Your task to perform on an android device: turn on airplane mode Image 0: 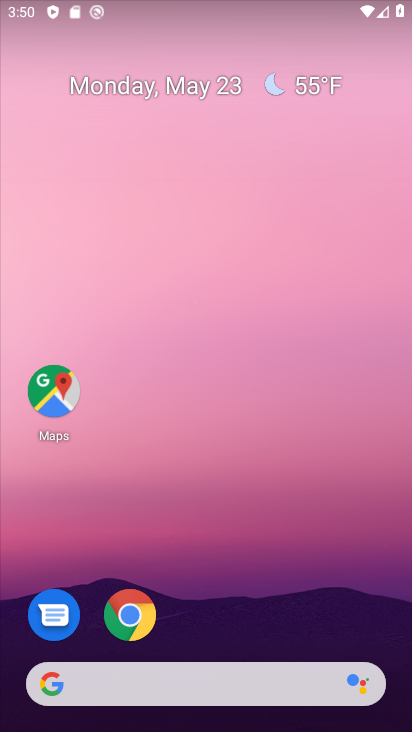
Step 0: drag from (362, 632) to (377, 205)
Your task to perform on an android device: turn on airplane mode Image 1: 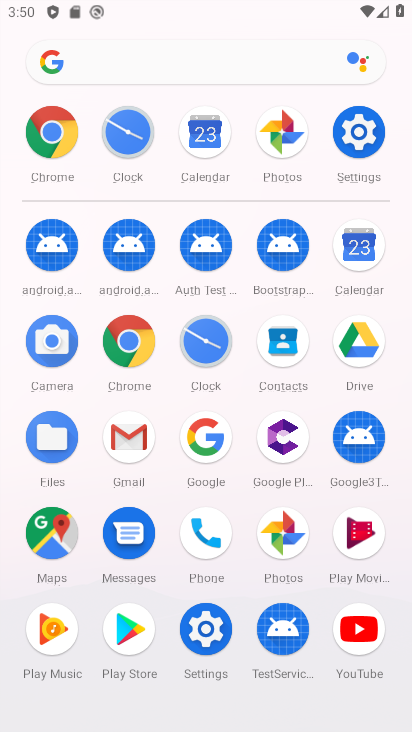
Step 1: click (375, 135)
Your task to perform on an android device: turn on airplane mode Image 2: 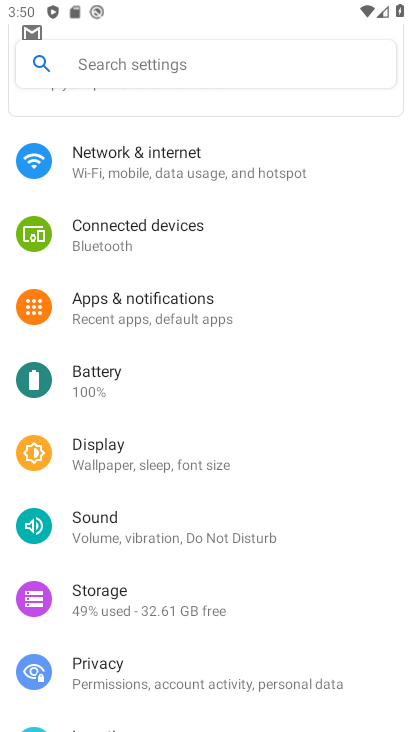
Step 2: drag from (339, 501) to (354, 397)
Your task to perform on an android device: turn on airplane mode Image 3: 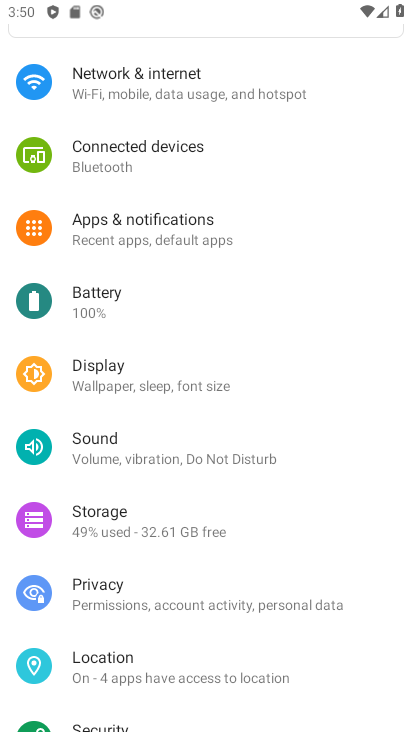
Step 3: drag from (347, 535) to (361, 439)
Your task to perform on an android device: turn on airplane mode Image 4: 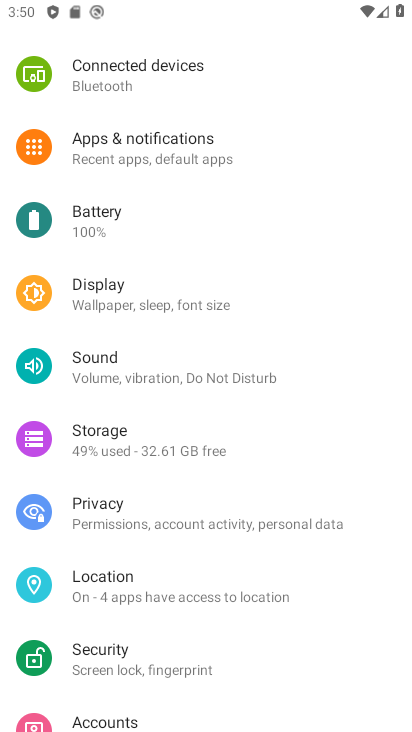
Step 4: drag from (360, 575) to (361, 478)
Your task to perform on an android device: turn on airplane mode Image 5: 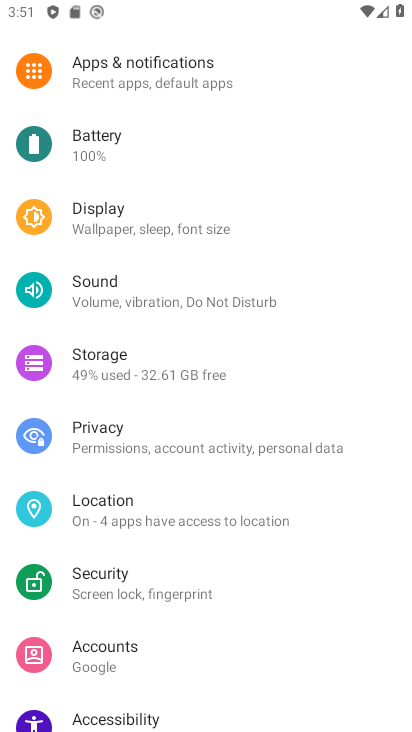
Step 5: drag from (349, 591) to (356, 498)
Your task to perform on an android device: turn on airplane mode Image 6: 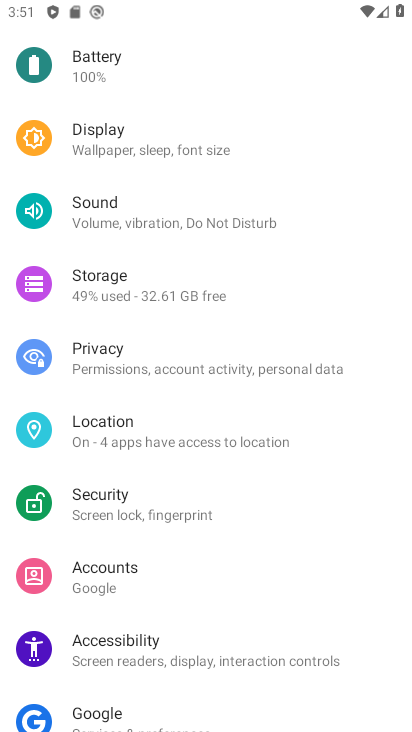
Step 6: drag from (344, 597) to (353, 500)
Your task to perform on an android device: turn on airplane mode Image 7: 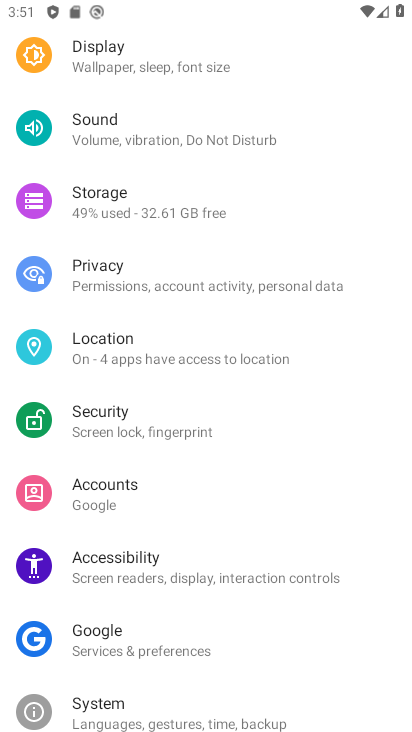
Step 7: drag from (356, 622) to (366, 521)
Your task to perform on an android device: turn on airplane mode Image 8: 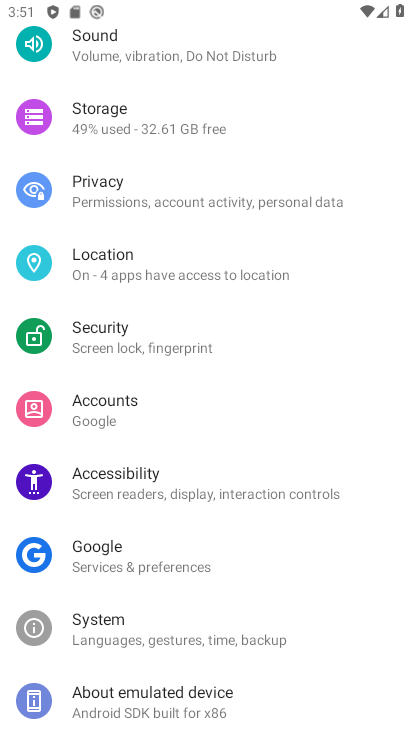
Step 8: drag from (346, 637) to (352, 548)
Your task to perform on an android device: turn on airplane mode Image 9: 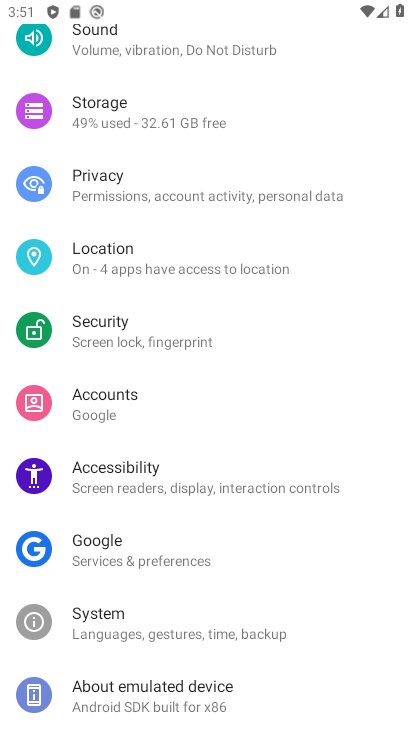
Step 9: drag from (338, 663) to (351, 510)
Your task to perform on an android device: turn on airplane mode Image 10: 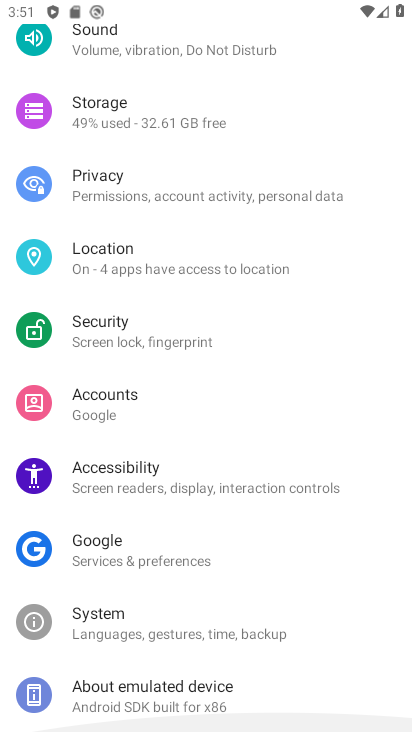
Step 10: drag from (366, 427) to (369, 505)
Your task to perform on an android device: turn on airplane mode Image 11: 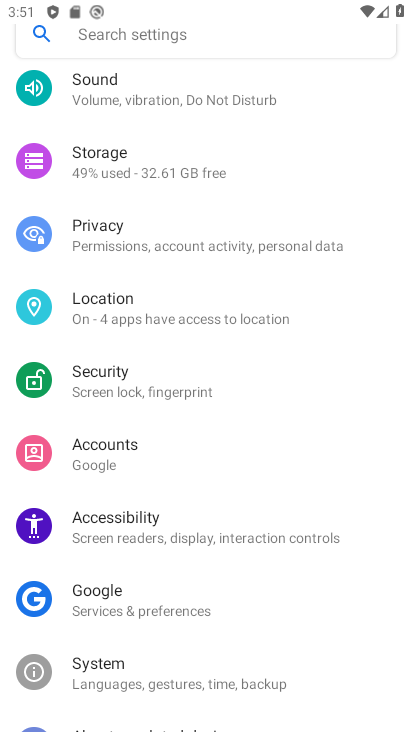
Step 11: drag from (384, 384) to (386, 501)
Your task to perform on an android device: turn on airplane mode Image 12: 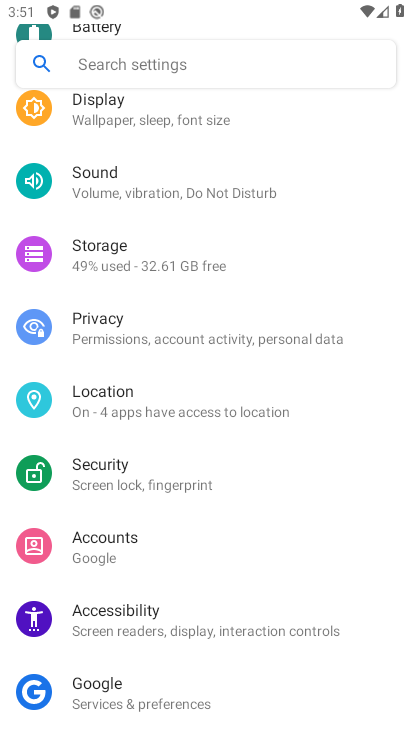
Step 12: drag from (386, 376) to (376, 475)
Your task to perform on an android device: turn on airplane mode Image 13: 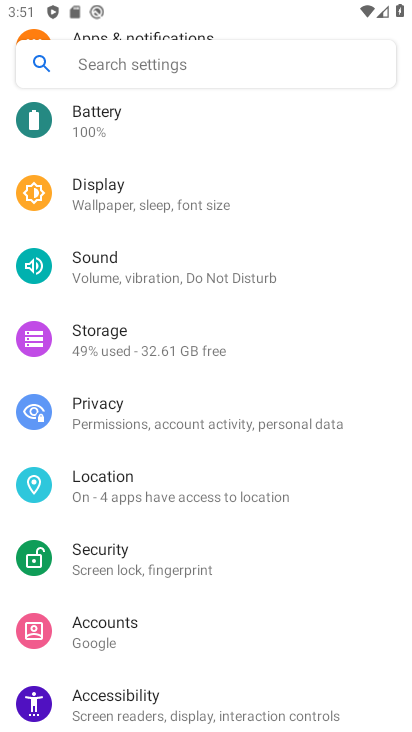
Step 13: drag from (376, 362) to (375, 458)
Your task to perform on an android device: turn on airplane mode Image 14: 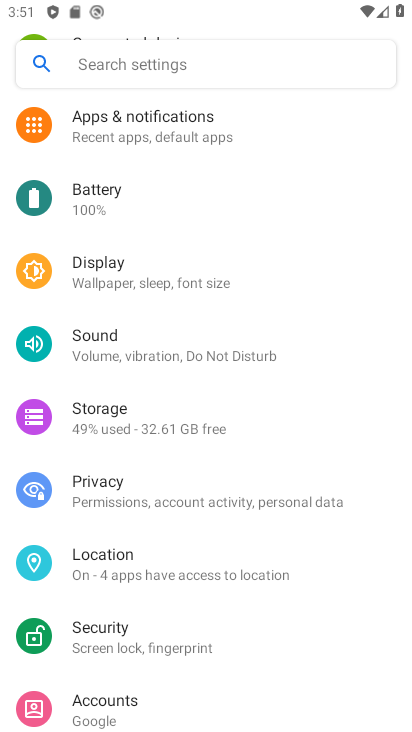
Step 14: drag from (363, 350) to (357, 435)
Your task to perform on an android device: turn on airplane mode Image 15: 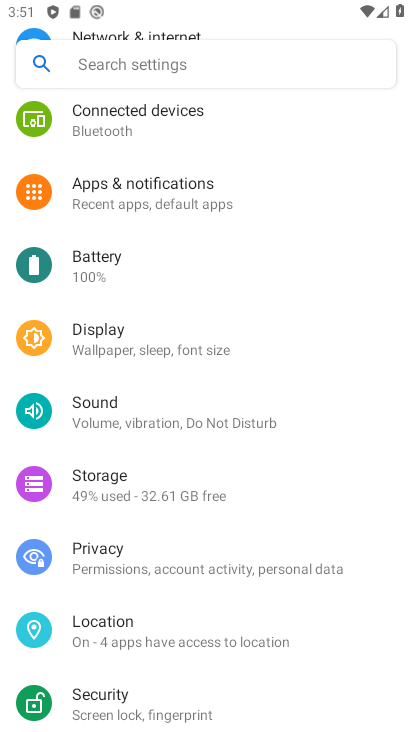
Step 15: drag from (357, 314) to (353, 425)
Your task to perform on an android device: turn on airplane mode Image 16: 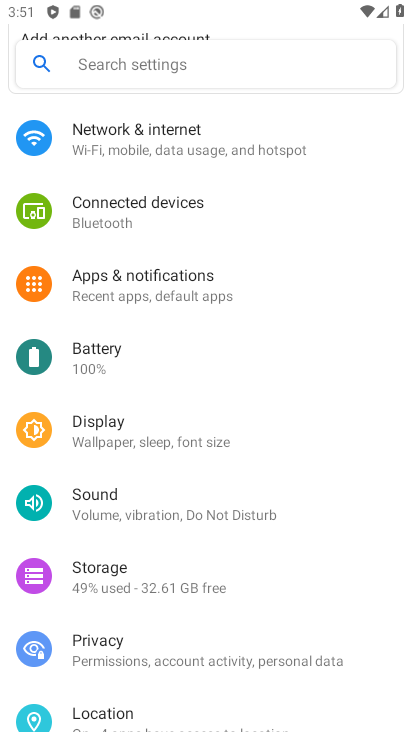
Step 16: drag from (342, 278) to (337, 394)
Your task to perform on an android device: turn on airplane mode Image 17: 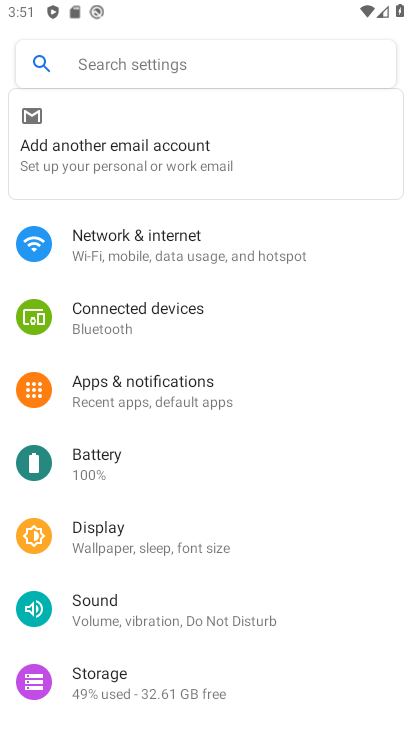
Step 17: drag from (353, 259) to (346, 415)
Your task to perform on an android device: turn on airplane mode Image 18: 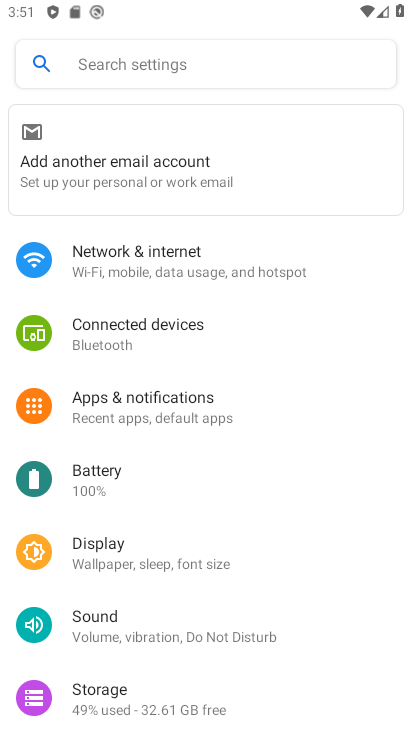
Step 18: click (252, 265)
Your task to perform on an android device: turn on airplane mode Image 19: 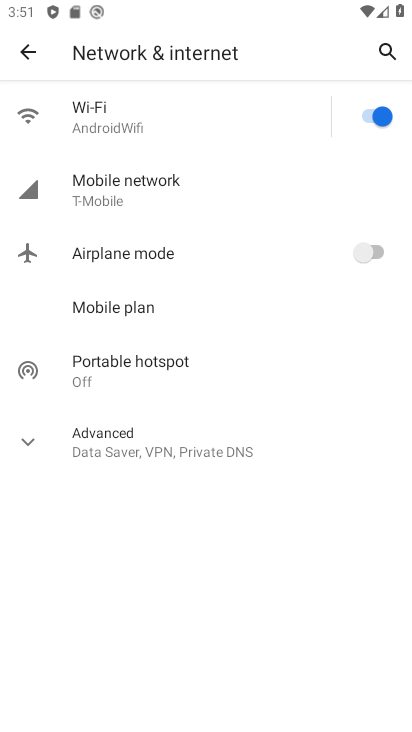
Step 19: click (364, 257)
Your task to perform on an android device: turn on airplane mode Image 20: 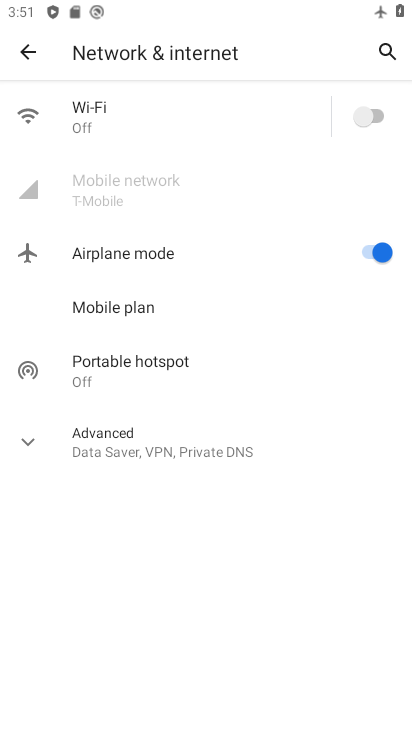
Step 20: task complete